Your task to perform on an android device: turn on the 12-hour format for clock Image 0: 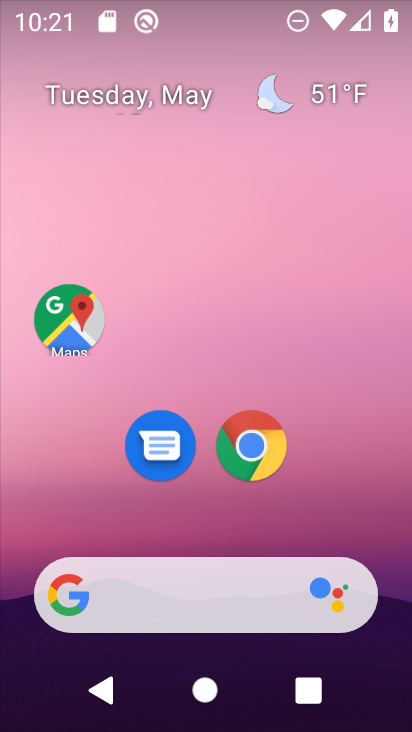
Step 0: drag from (173, 572) to (139, 7)
Your task to perform on an android device: turn on the 12-hour format for clock Image 1: 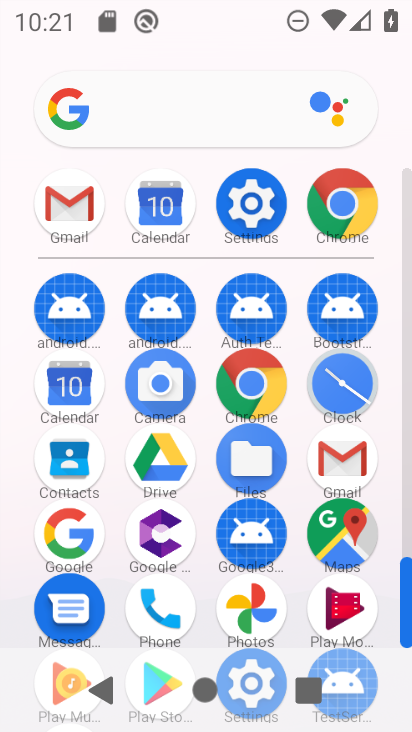
Step 1: click (239, 200)
Your task to perform on an android device: turn on the 12-hour format for clock Image 2: 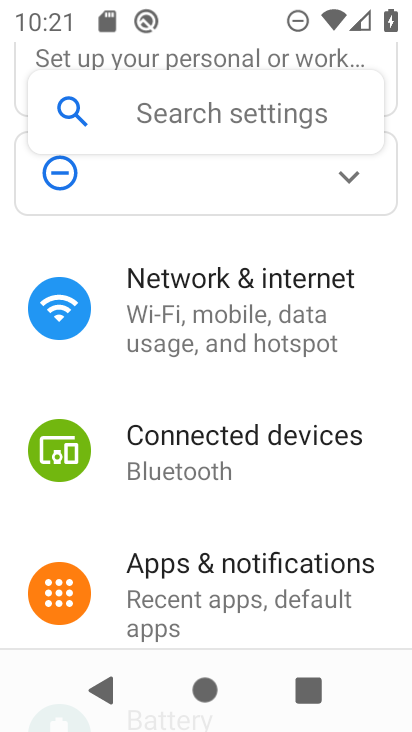
Step 2: drag from (230, 620) to (190, 56)
Your task to perform on an android device: turn on the 12-hour format for clock Image 3: 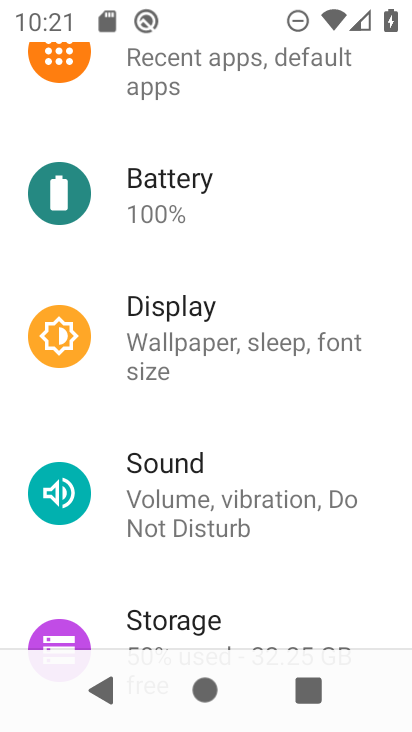
Step 3: drag from (236, 624) to (195, 108)
Your task to perform on an android device: turn on the 12-hour format for clock Image 4: 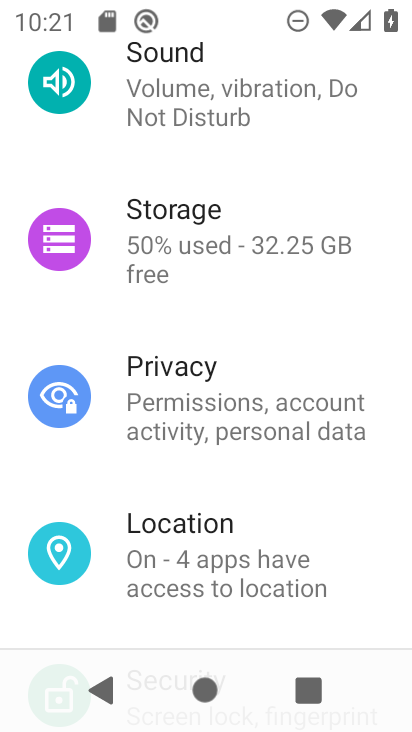
Step 4: drag from (225, 565) to (144, 24)
Your task to perform on an android device: turn on the 12-hour format for clock Image 5: 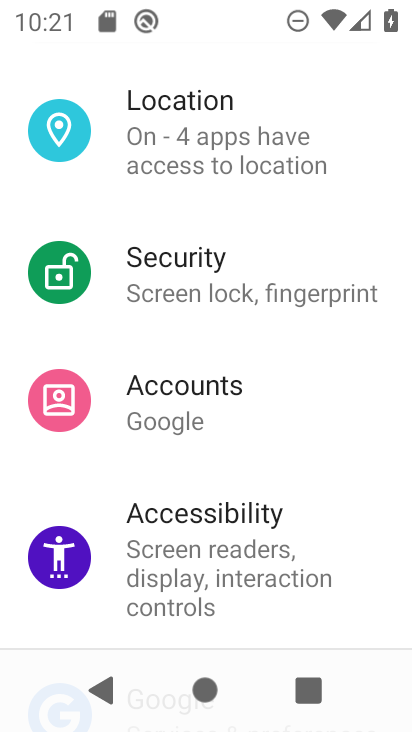
Step 5: drag from (223, 496) to (76, 36)
Your task to perform on an android device: turn on the 12-hour format for clock Image 6: 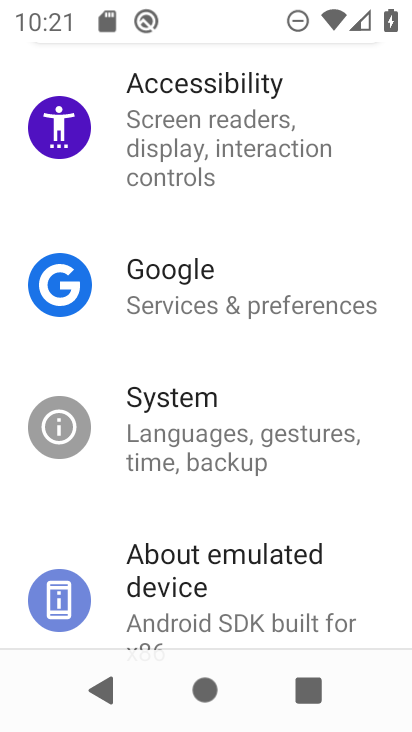
Step 6: click (193, 464)
Your task to perform on an android device: turn on the 12-hour format for clock Image 7: 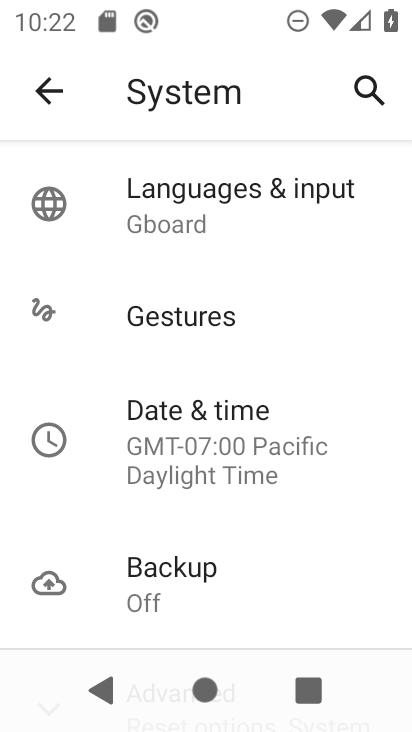
Step 7: click (186, 423)
Your task to perform on an android device: turn on the 12-hour format for clock Image 8: 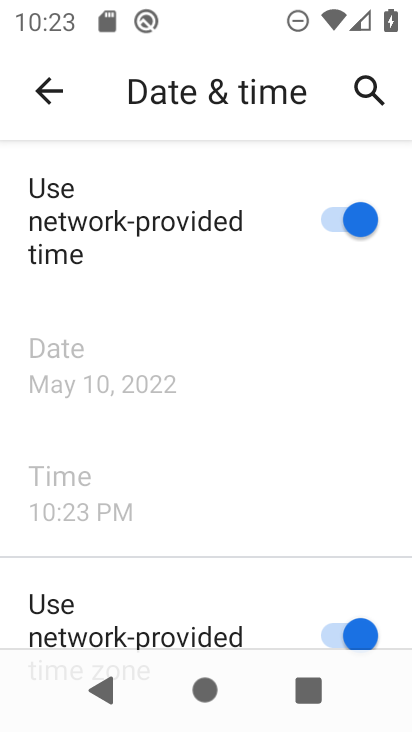
Step 8: task complete